Your task to perform on an android device: see creations saved in the google photos Image 0: 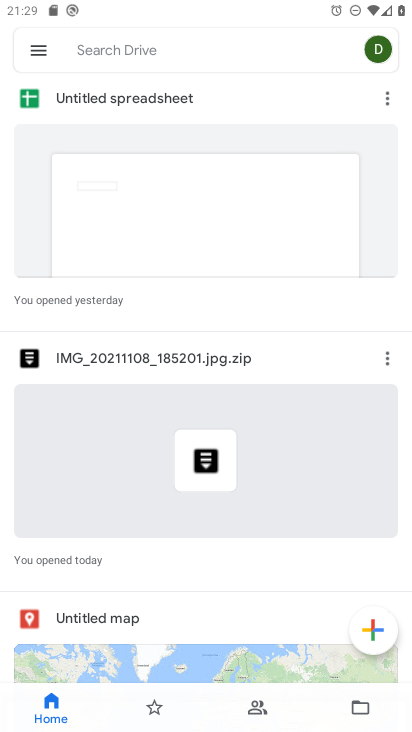
Step 0: press home button
Your task to perform on an android device: see creations saved in the google photos Image 1: 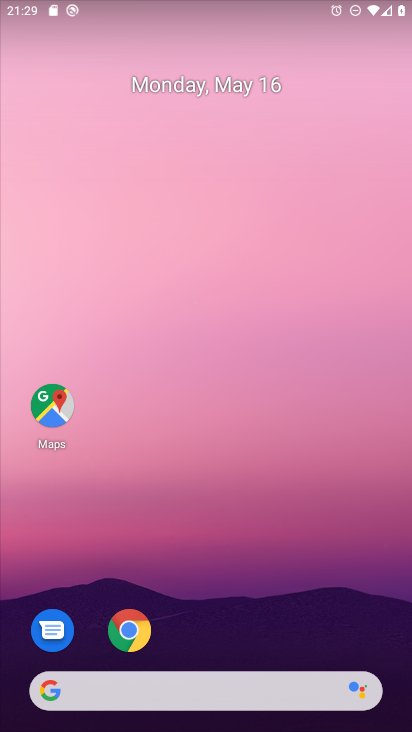
Step 1: drag from (236, 586) to (275, 382)
Your task to perform on an android device: see creations saved in the google photos Image 2: 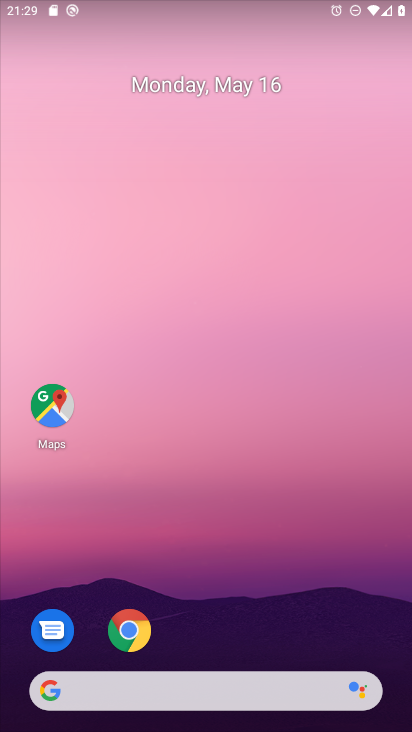
Step 2: drag from (217, 557) to (280, 162)
Your task to perform on an android device: see creations saved in the google photos Image 3: 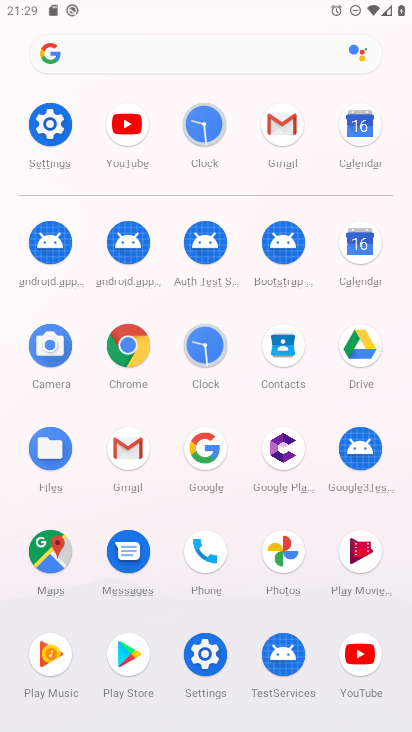
Step 3: click (279, 548)
Your task to perform on an android device: see creations saved in the google photos Image 4: 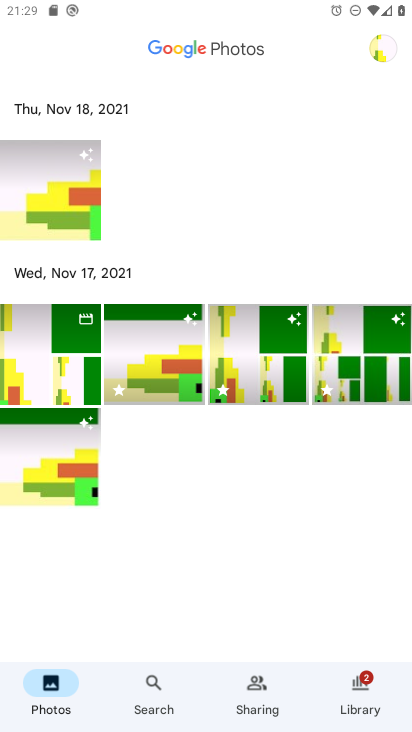
Step 4: click (65, 212)
Your task to perform on an android device: see creations saved in the google photos Image 5: 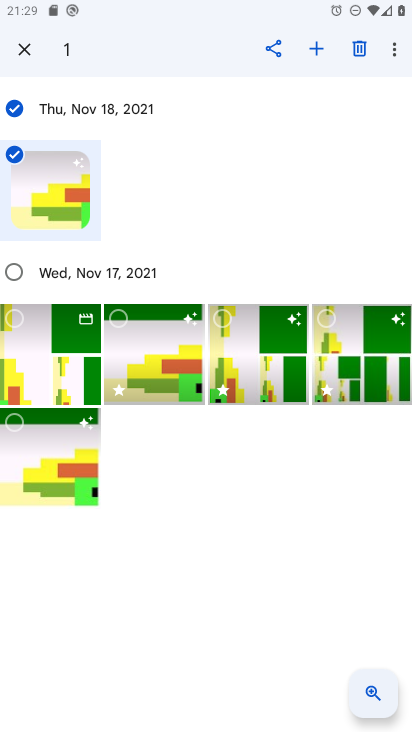
Step 5: click (20, 368)
Your task to perform on an android device: see creations saved in the google photos Image 6: 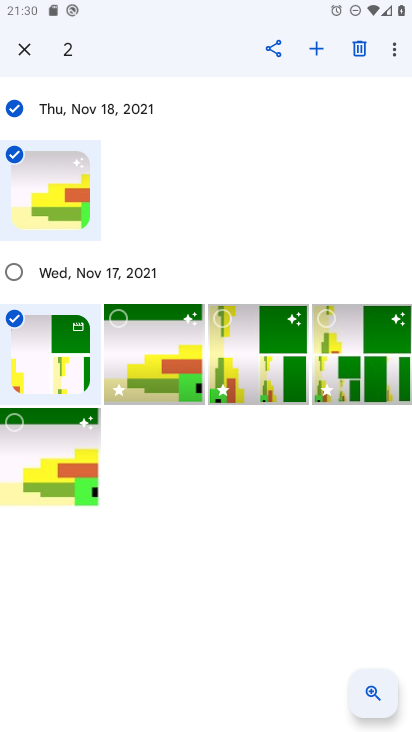
Step 6: click (3, 461)
Your task to perform on an android device: see creations saved in the google photos Image 7: 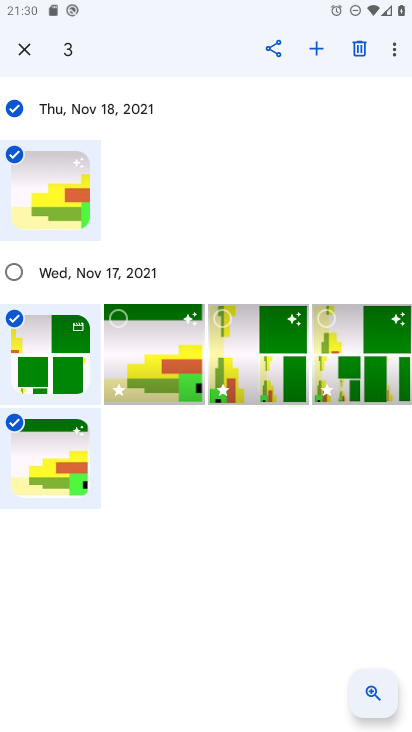
Step 7: click (387, 44)
Your task to perform on an android device: see creations saved in the google photos Image 8: 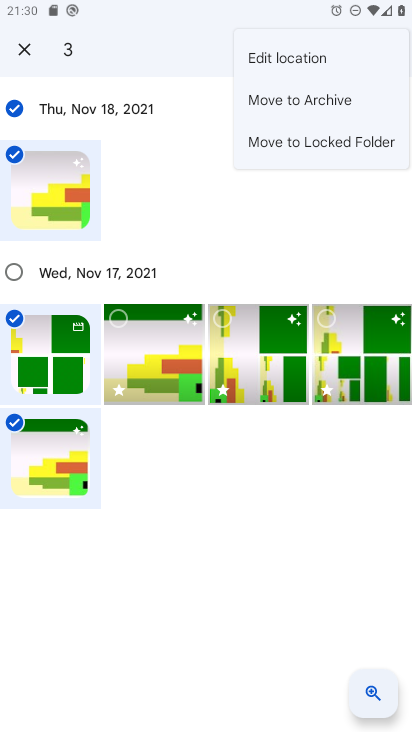
Step 8: press back button
Your task to perform on an android device: see creations saved in the google photos Image 9: 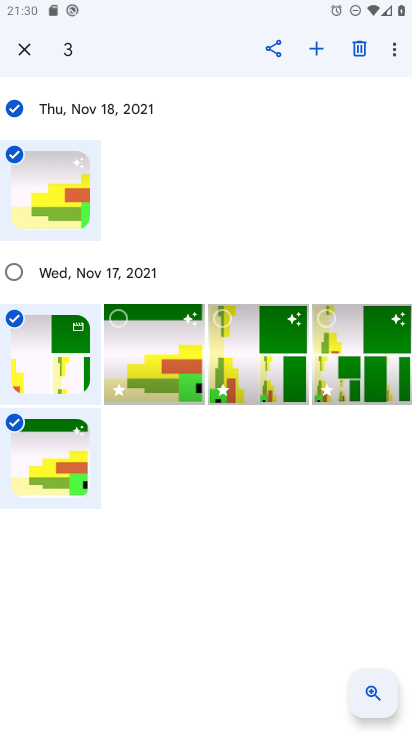
Step 9: press back button
Your task to perform on an android device: see creations saved in the google photos Image 10: 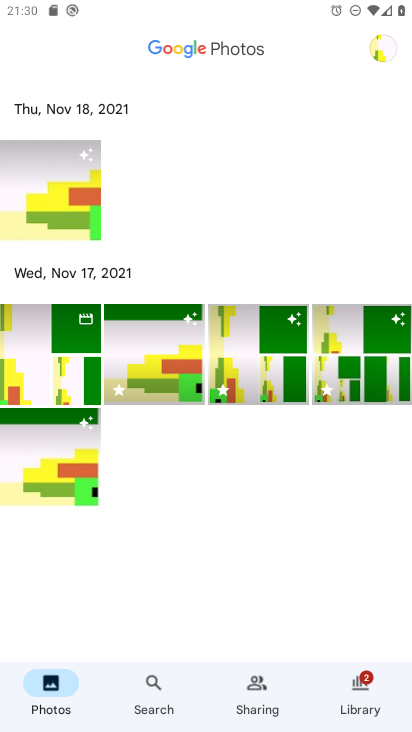
Step 10: press back button
Your task to perform on an android device: see creations saved in the google photos Image 11: 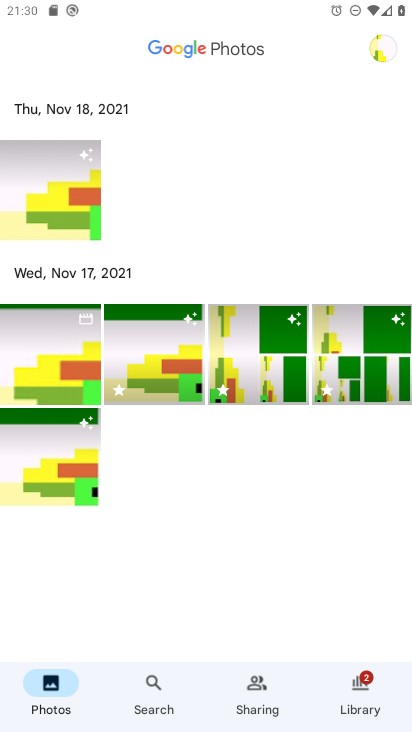
Step 11: press back button
Your task to perform on an android device: see creations saved in the google photos Image 12: 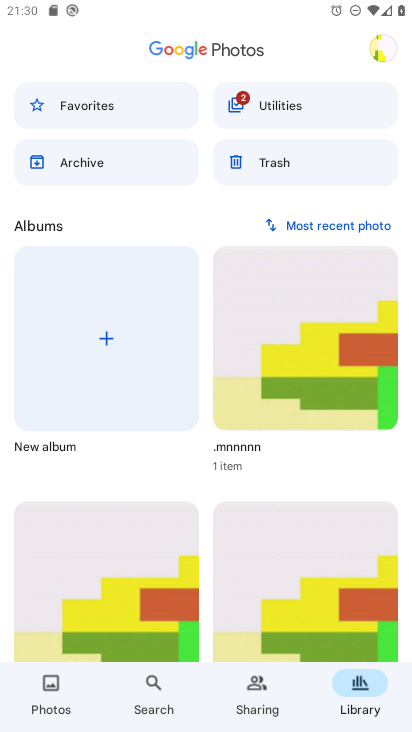
Step 12: click (366, 35)
Your task to perform on an android device: see creations saved in the google photos Image 13: 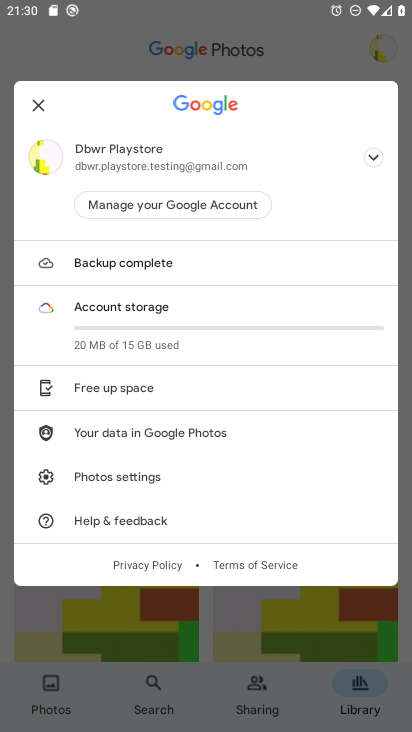
Step 13: click (117, 471)
Your task to perform on an android device: see creations saved in the google photos Image 14: 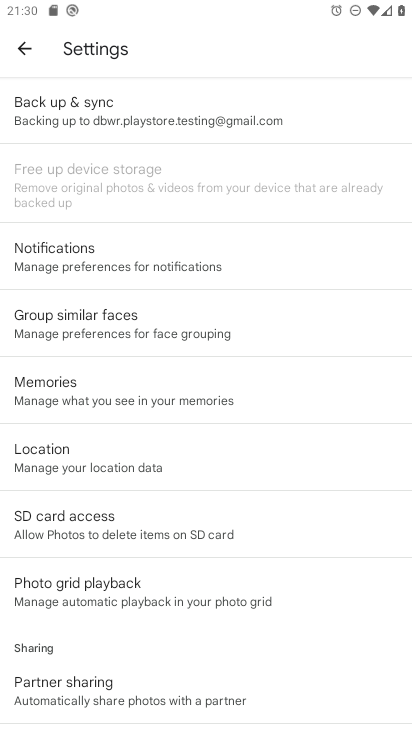
Step 14: drag from (200, 632) to (216, 230)
Your task to perform on an android device: see creations saved in the google photos Image 15: 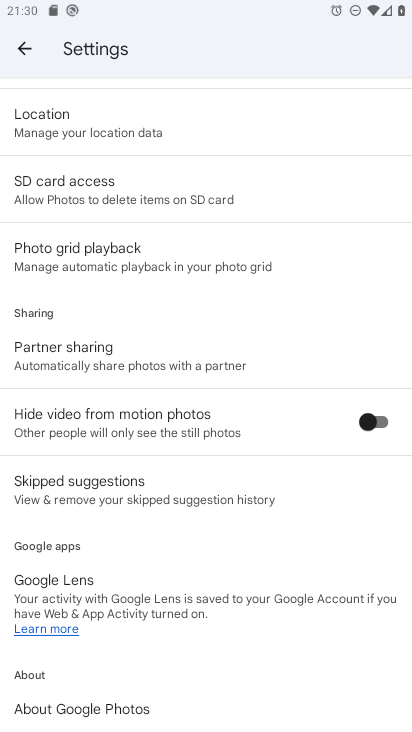
Step 15: drag from (197, 602) to (216, 397)
Your task to perform on an android device: see creations saved in the google photos Image 16: 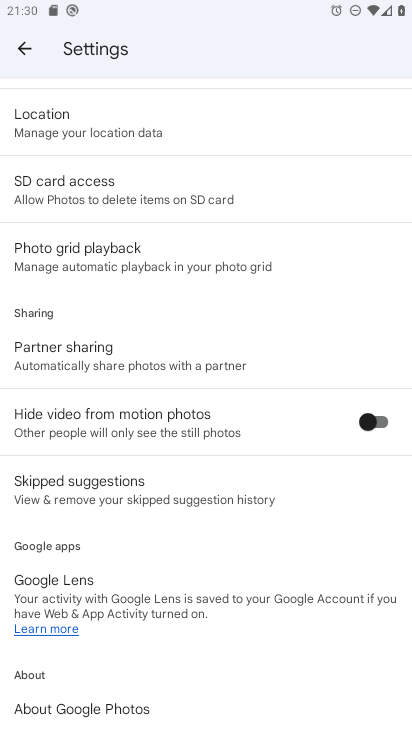
Step 16: drag from (242, 165) to (227, 532)
Your task to perform on an android device: see creations saved in the google photos Image 17: 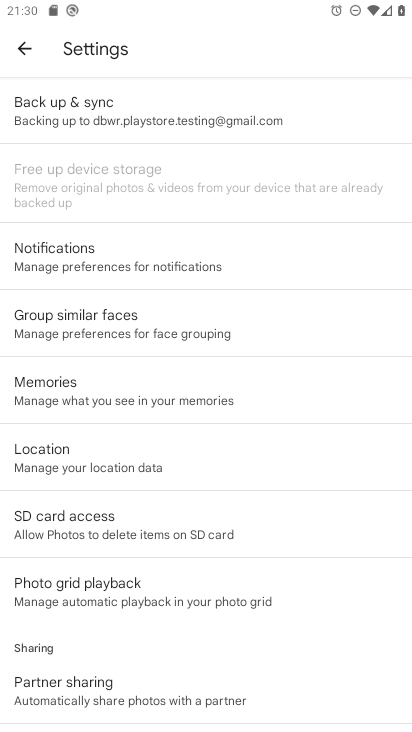
Step 17: drag from (215, 253) to (221, 622)
Your task to perform on an android device: see creations saved in the google photos Image 18: 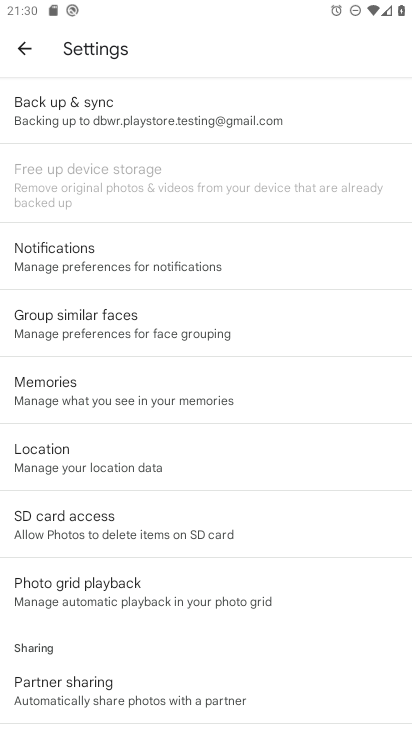
Step 18: drag from (215, 562) to (219, 228)
Your task to perform on an android device: see creations saved in the google photos Image 19: 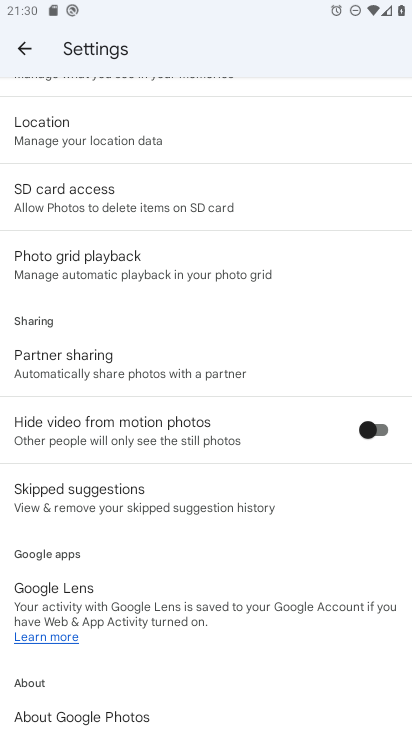
Step 19: drag from (151, 556) to (195, 271)
Your task to perform on an android device: see creations saved in the google photos Image 20: 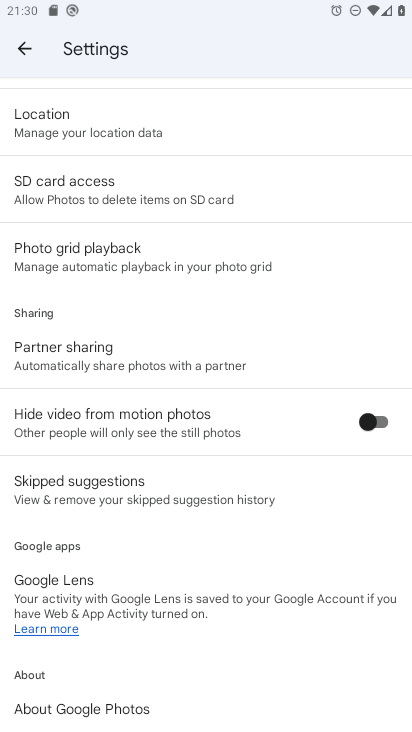
Step 20: click (129, 703)
Your task to perform on an android device: see creations saved in the google photos Image 21: 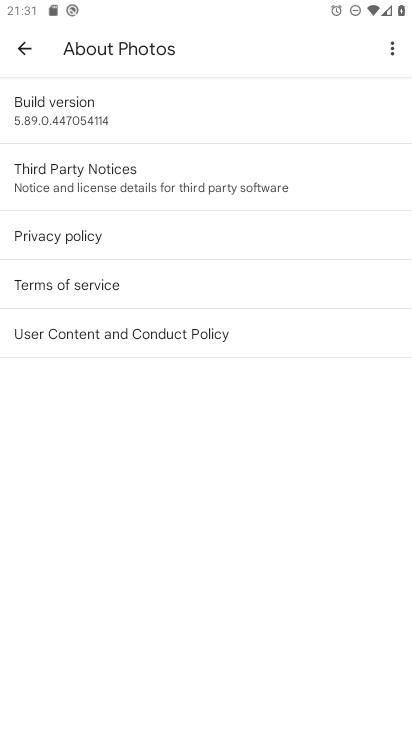
Step 21: task complete